Your task to perform on an android device: set the stopwatch Image 0: 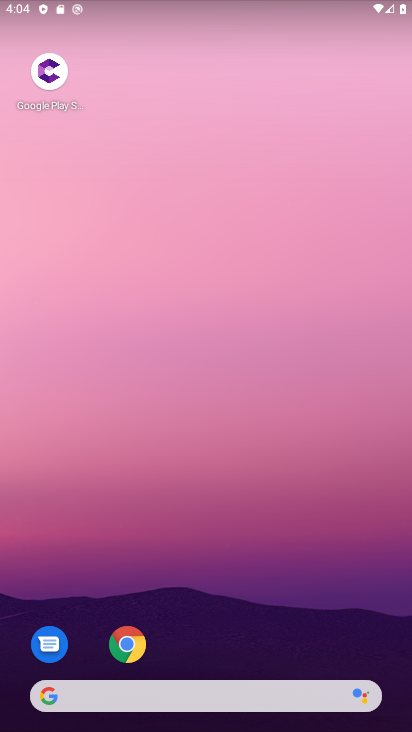
Step 0: drag from (246, 618) to (278, 141)
Your task to perform on an android device: set the stopwatch Image 1: 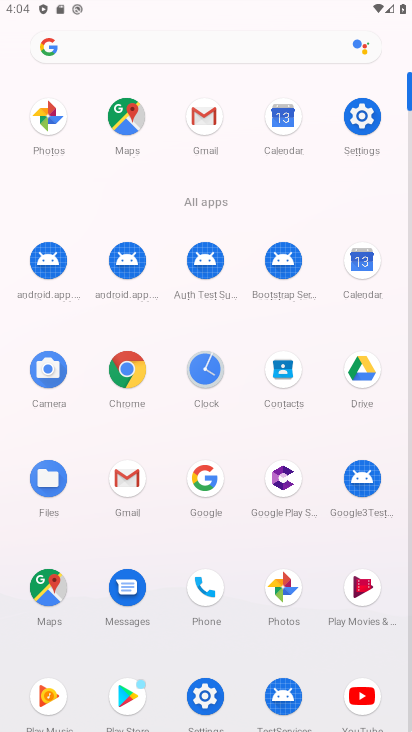
Step 1: click (209, 363)
Your task to perform on an android device: set the stopwatch Image 2: 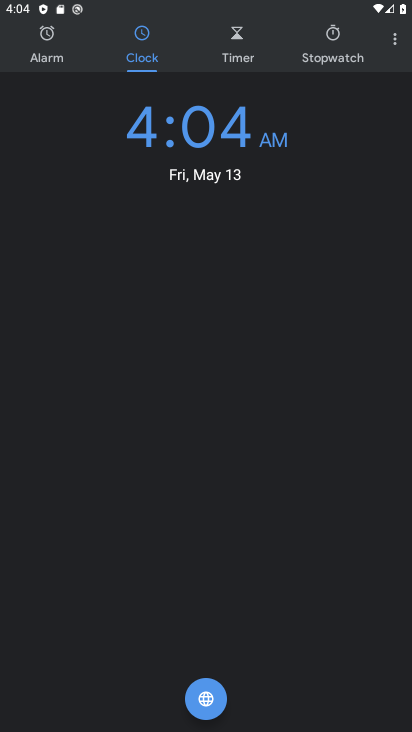
Step 2: click (338, 45)
Your task to perform on an android device: set the stopwatch Image 3: 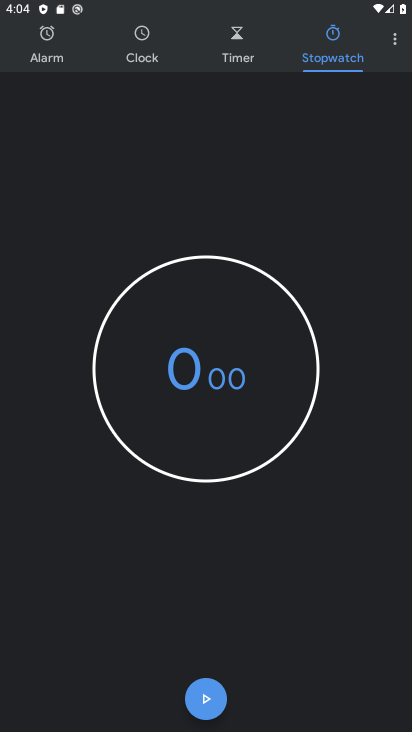
Step 3: click (230, 374)
Your task to perform on an android device: set the stopwatch Image 4: 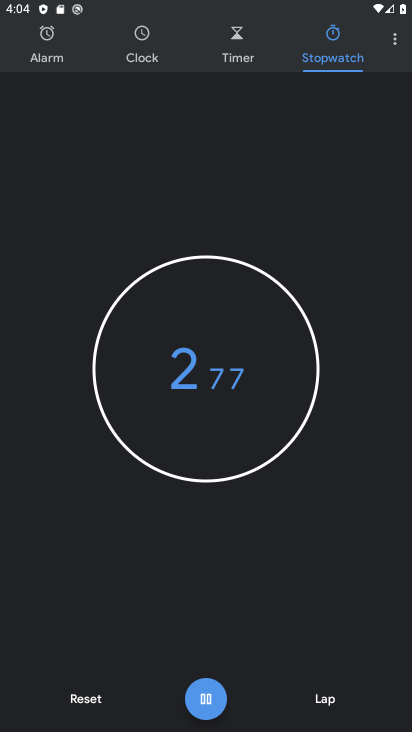
Step 4: task complete